Your task to perform on an android device: toggle translation in the chrome app Image 0: 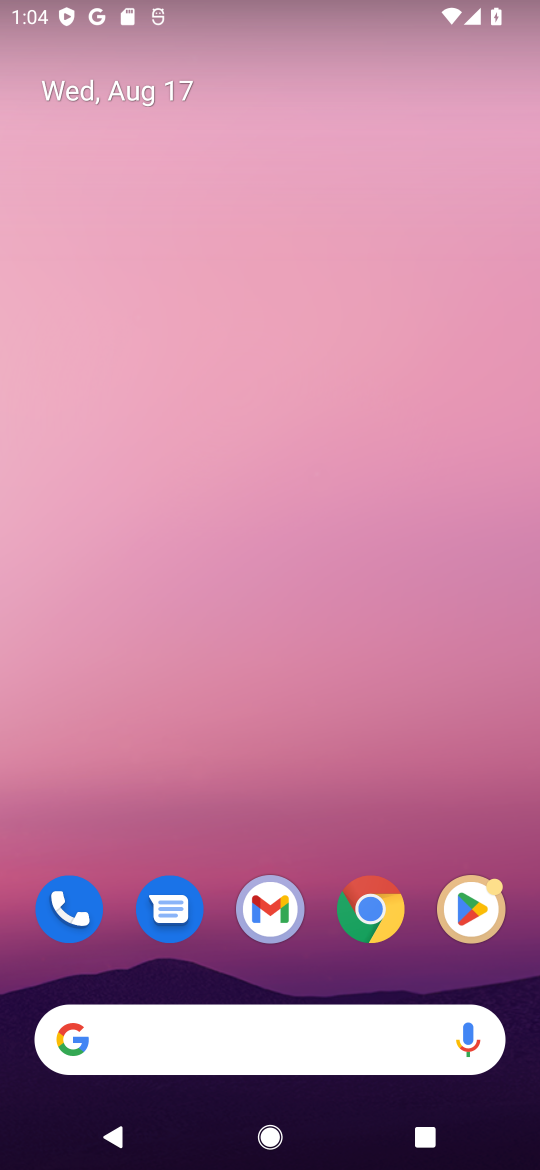
Step 0: click (375, 910)
Your task to perform on an android device: toggle translation in the chrome app Image 1: 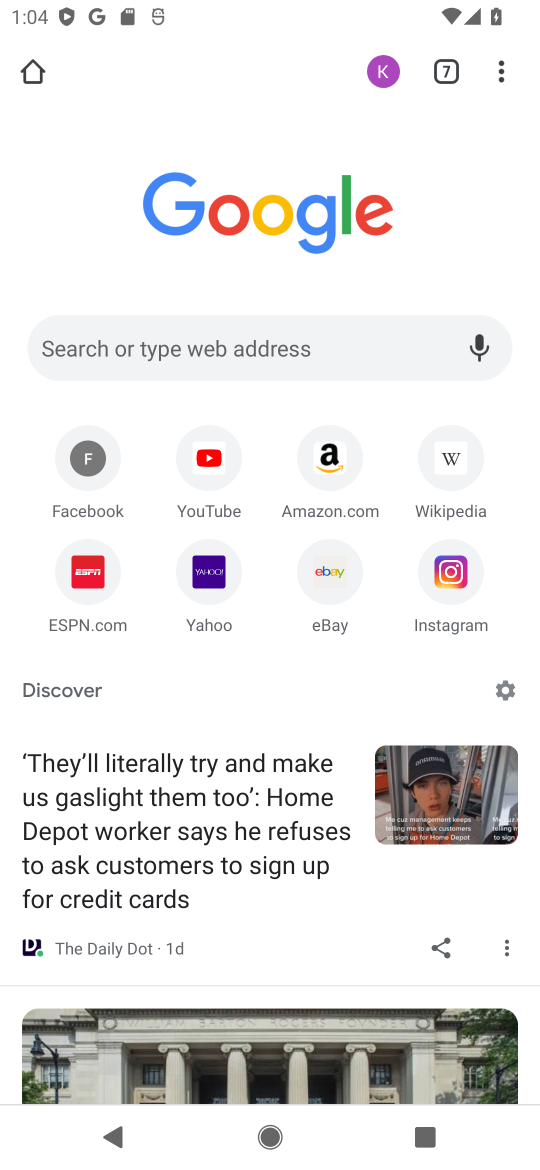
Step 1: click (504, 72)
Your task to perform on an android device: toggle translation in the chrome app Image 2: 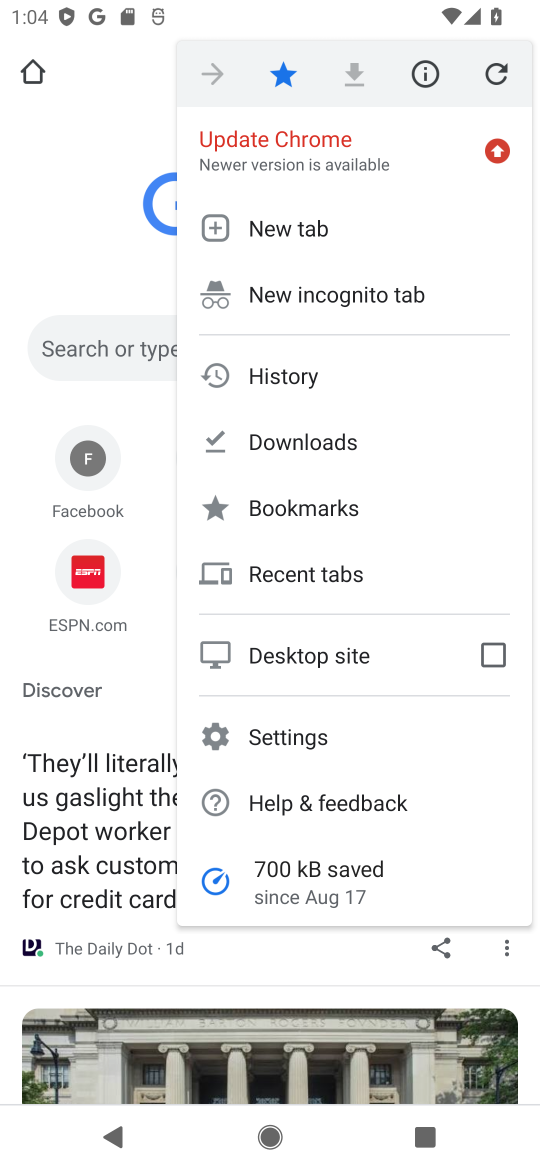
Step 2: click (282, 732)
Your task to perform on an android device: toggle translation in the chrome app Image 3: 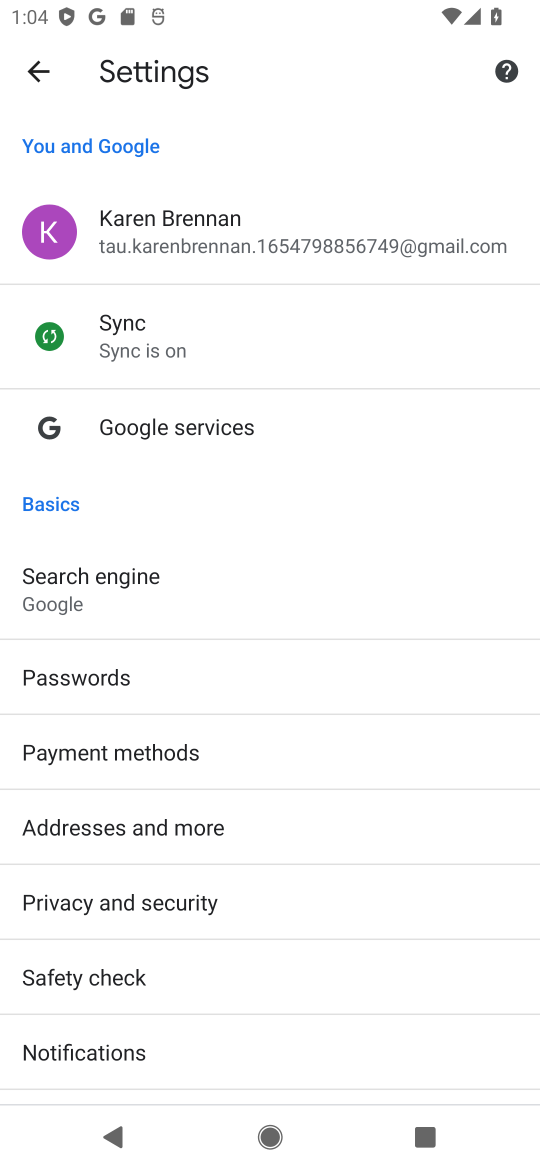
Step 3: drag from (271, 1045) to (261, 607)
Your task to perform on an android device: toggle translation in the chrome app Image 4: 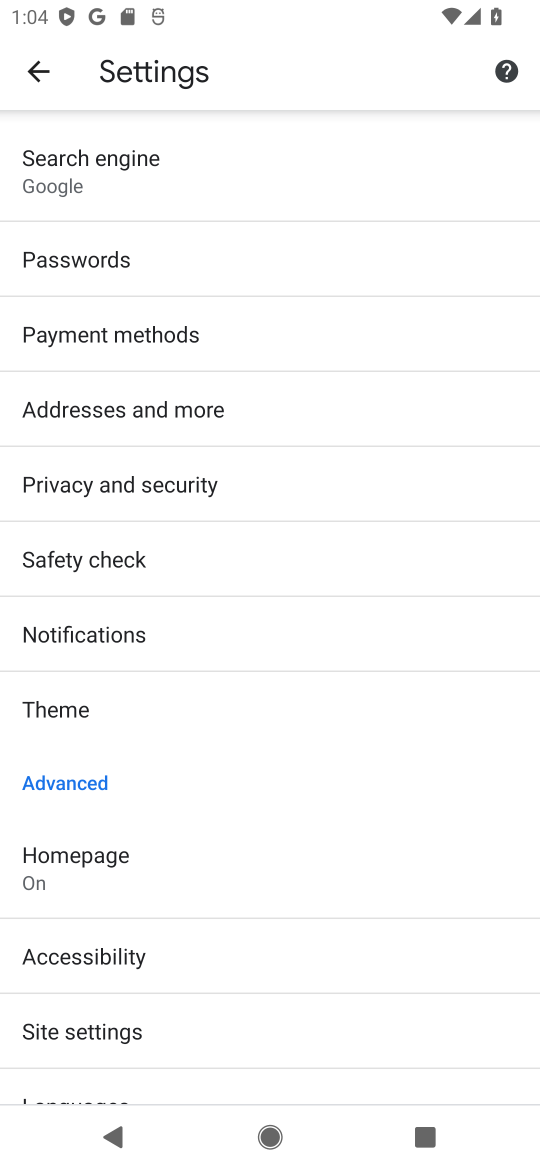
Step 4: drag from (240, 927) to (240, 654)
Your task to perform on an android device: toggle translation in the chrome app Image 5: 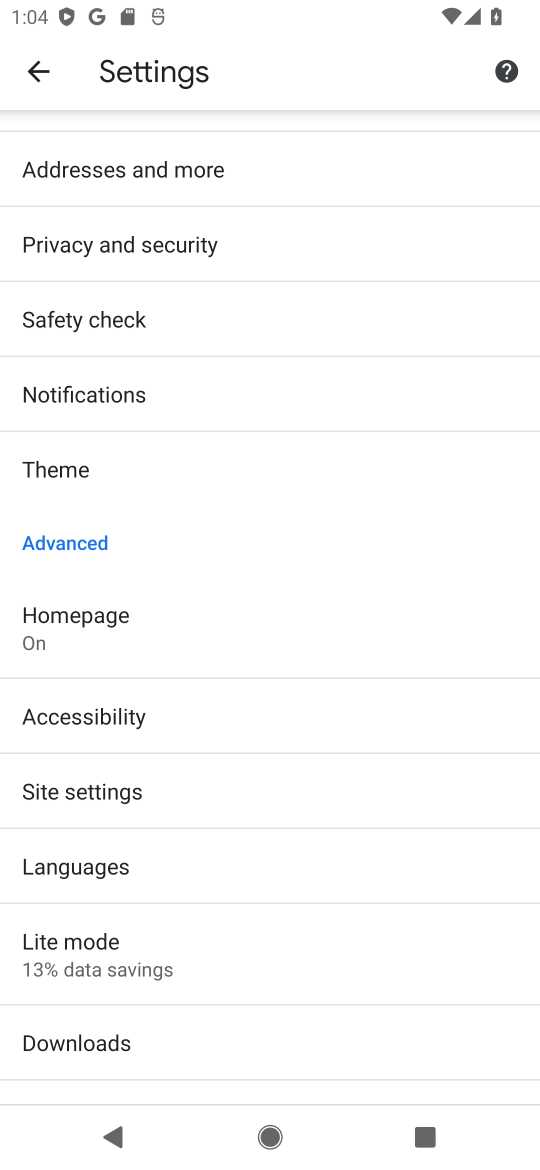
Step 5: click (75, 858)
Your task to perform on an android device: toggle translation in the chrome app Image 6: 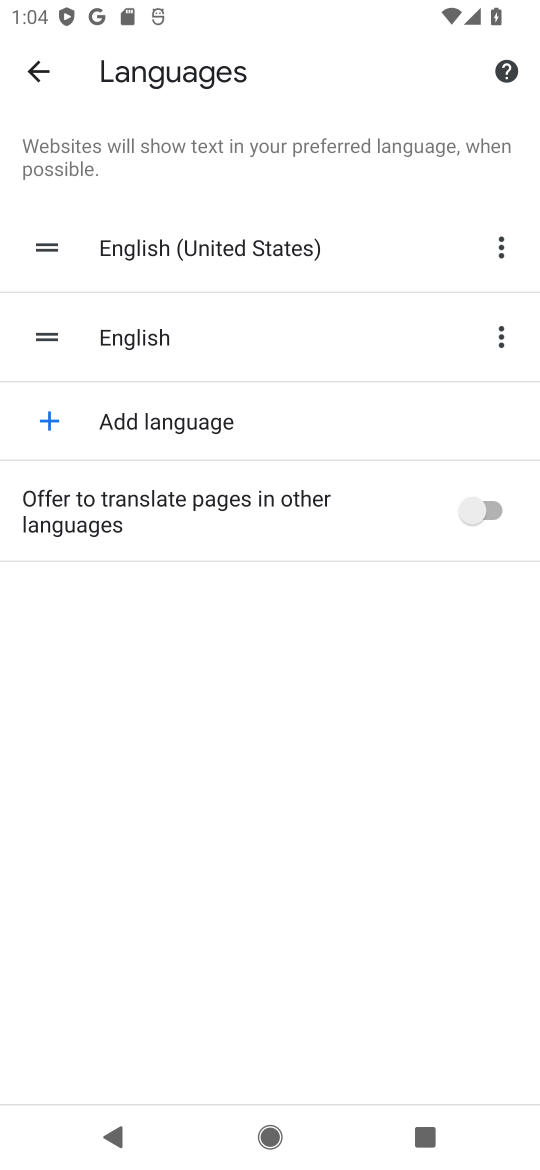
Step 6: click (466, 504)
Your task to perform on an android device: toggle translation in the chrome app Image 7: 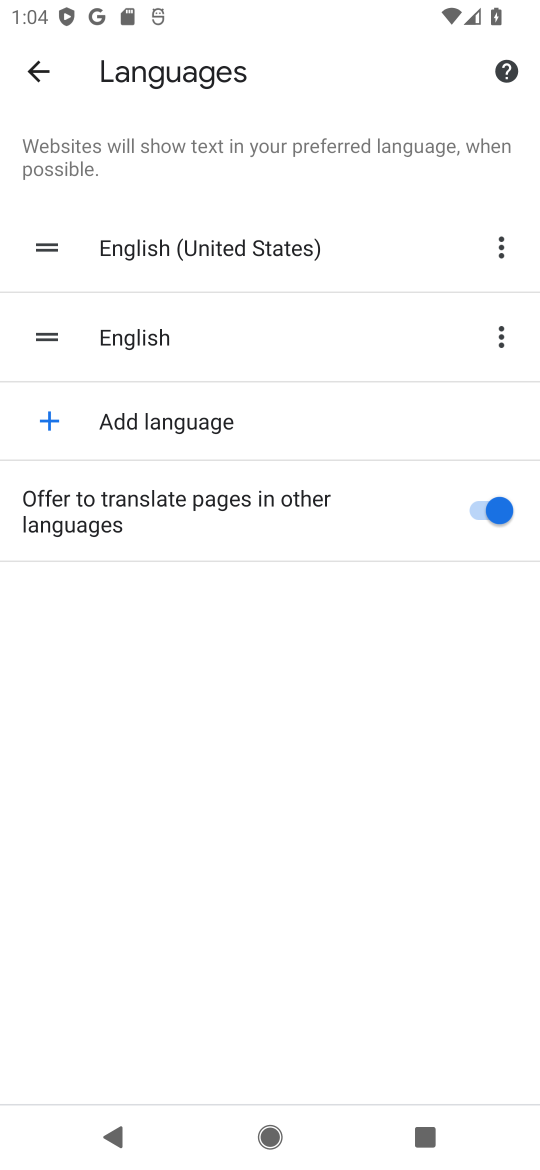
Step 7: task complete